Your task to perform on an android device: turn off sleep mode Image 0: 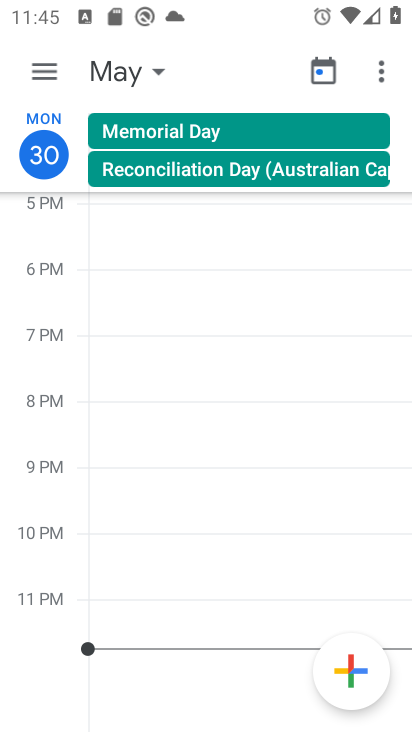
Step 0: press home button
Your task to perform on an android device: turn off sleep mode Image 1: 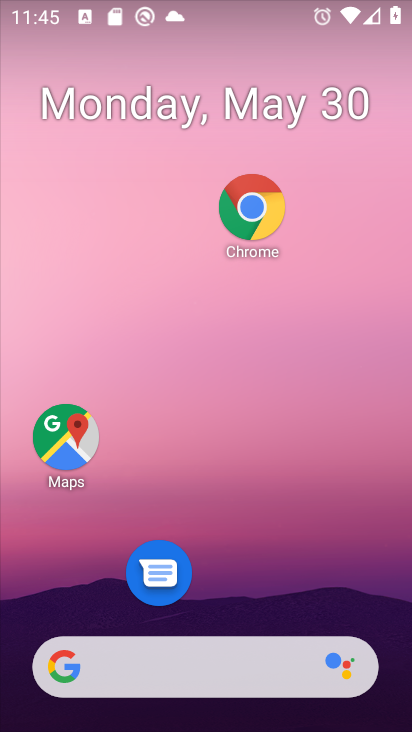
Step 1: drag from (254, 612) to (196, 7)
Your task to perform on an android device: turn off sleep mode Image 2: 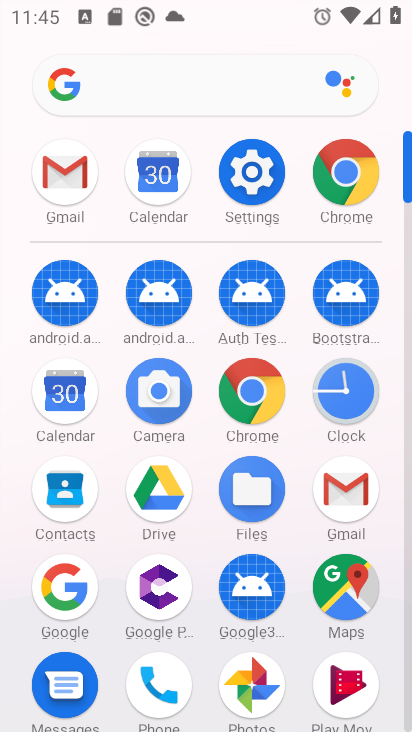
Step 2: click (264, 181)
Your task to perform on an android device: turn off sleep mode Image 3: 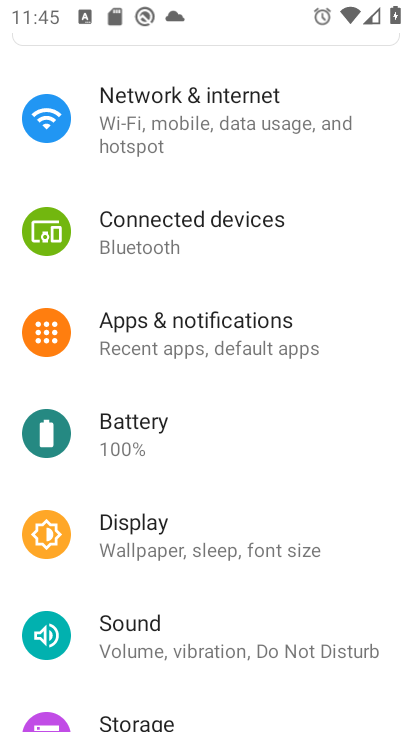
Step 3: click (168, 543)
Your task to perform on an android device: turn off sleep mode Image 4: 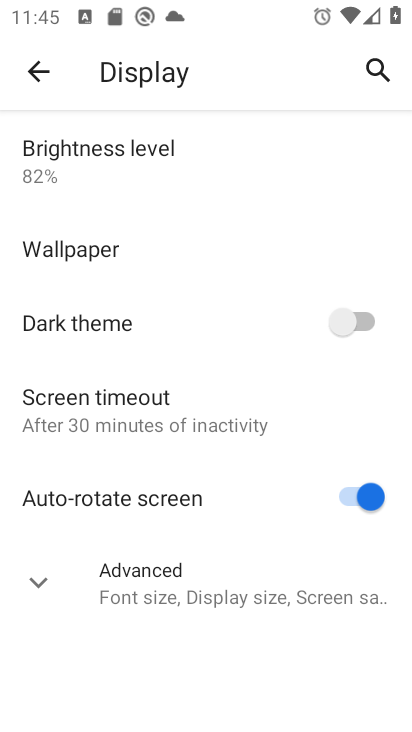
Step 4: task complete